Your task to perform on an android device: turn off priority inbox in the gmail app Image 0: 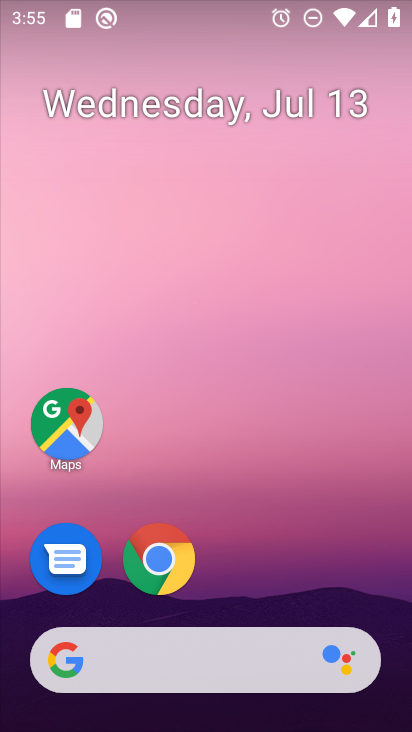
Step 0: drag from (342, 524) to (346, 100)
Your task to perform on an android device: turn off priority inbox in the gmail app Image 1: 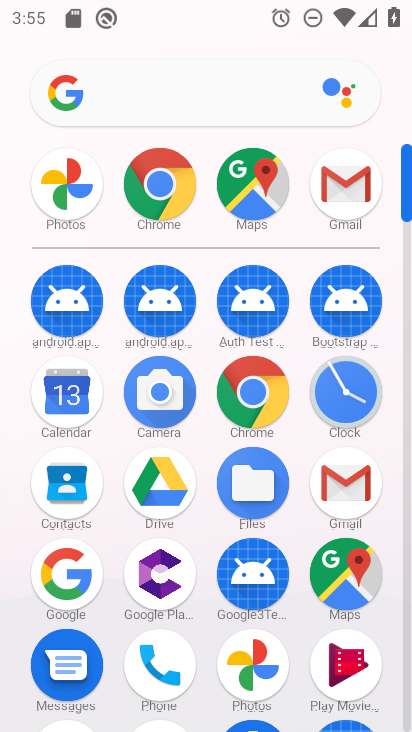
Step 1: click (345, 479)
Your task to perform on an android device: turn off priority inbox in the gmail app Image 2: 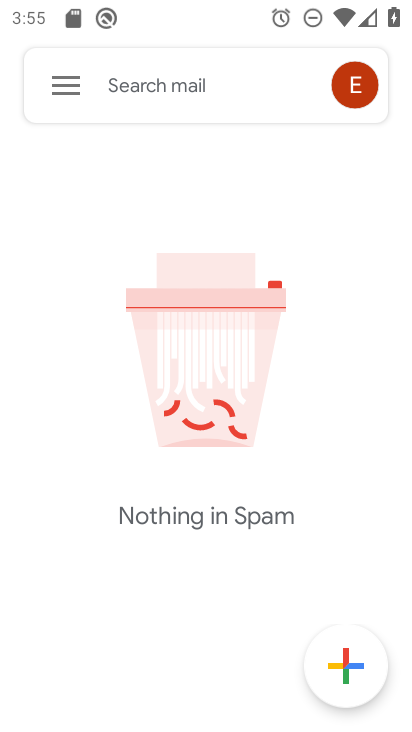
Step 2: click (63, 89)
Your task to perform on an android device: turn off priority inbox in the gmail app Image 3: 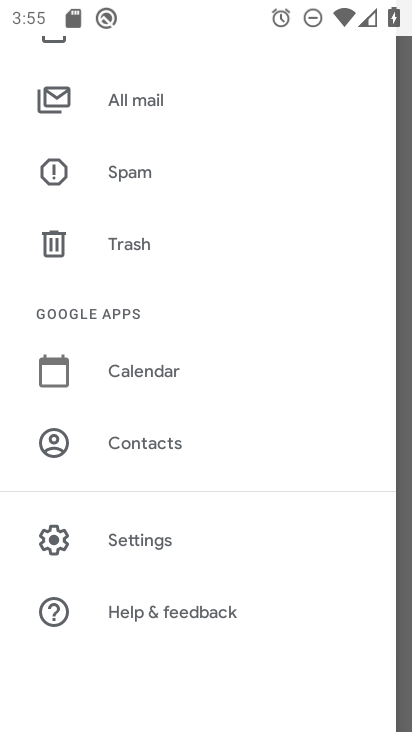
Step 3: drag from (284, 288) to (297, 379)
Your task to perform on an android device: turn off priority inbox in the gmail app Image 4: 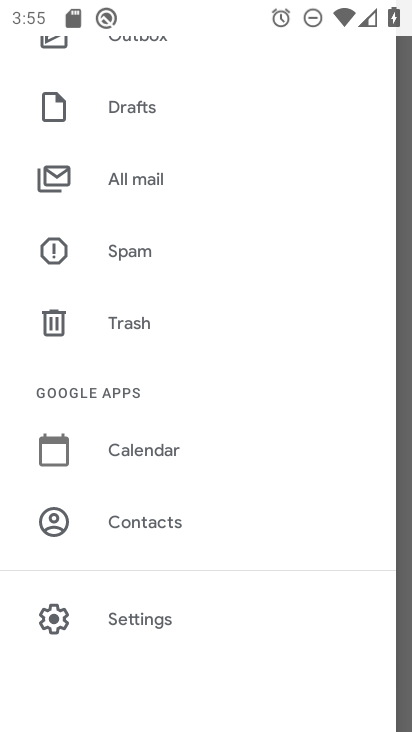
Step 4: drag from (301, 297) to (307, 387)
Your task to perform on an android device: turn off priority inbox in the gmail app Image 5: 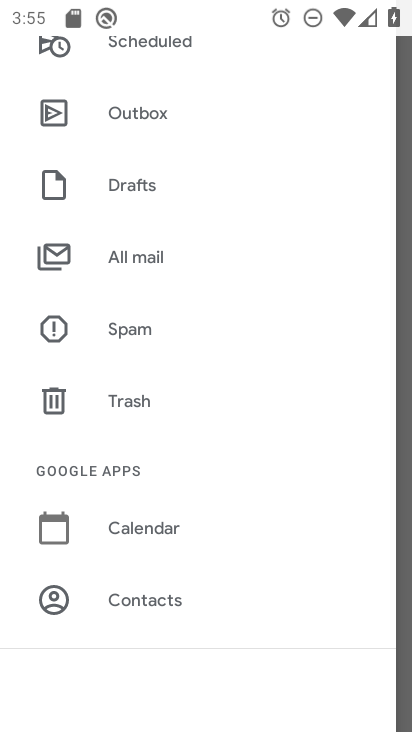
Step 5: drag from (307, 288) to (307, 381)
Your task to perform on an android device: turn off priority inbox in the gmail app Image 6: 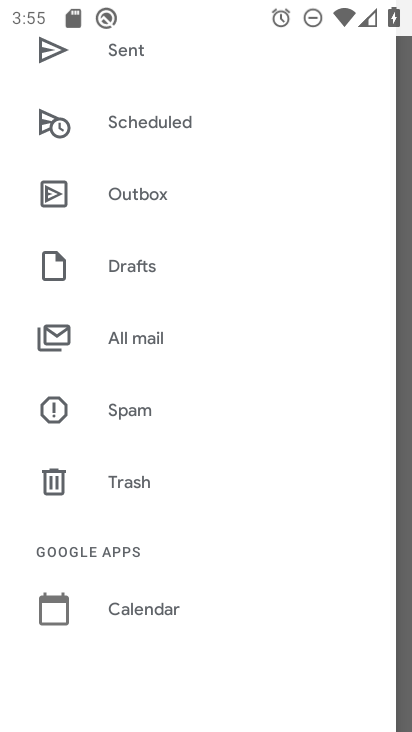
Step 6: drag from (286, 221) to (293, 332)
Your task to perform on an android device: turn off priority inbox in the gmail app Image 7: 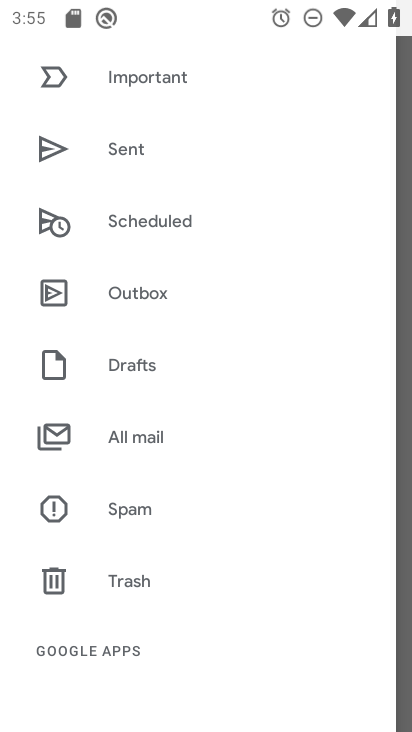
Step 7: drag from (291, 209) to (291, 308)
Your task to perform on an android device: turn off priority inbox in the gmail app Image 8: 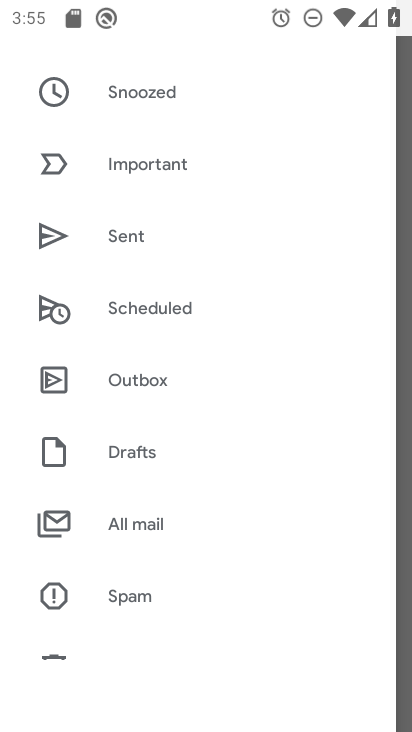
Step 8: drag from (297, 257) to (314, 369)
Your task to perform on an android device: turn off priority inbox in the gmail app Image 9: 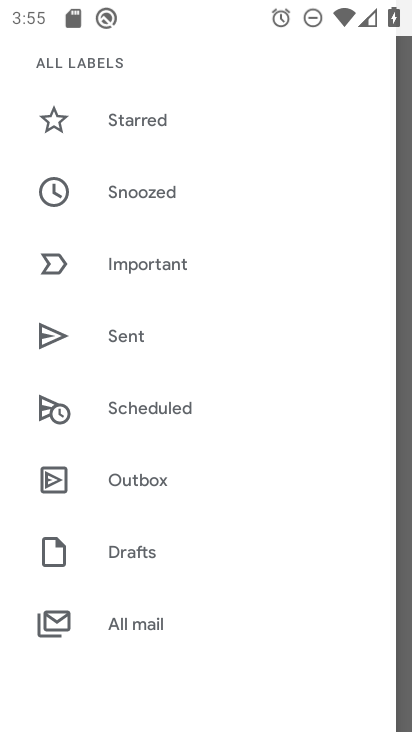
Step 9: drag from (306, 254) to (319, 381)
Your task to perform on an android device: turn off priority inbox in the gmail app Image 10: 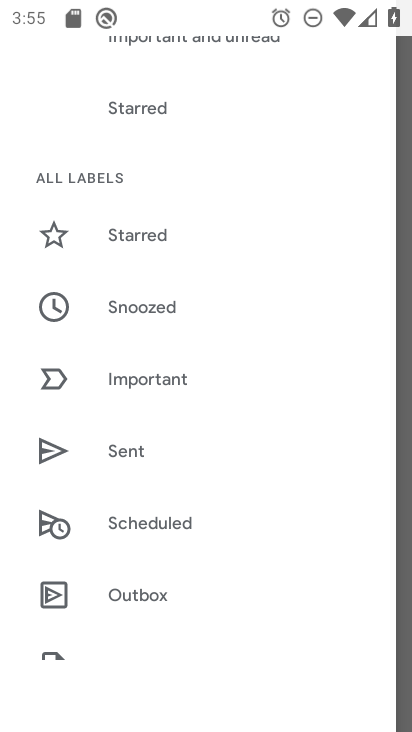
Step 10: drag from (308, 195) to (312, 396)
Your task to perform on an android device: turn off priority inbox in the gmail app Image 11: 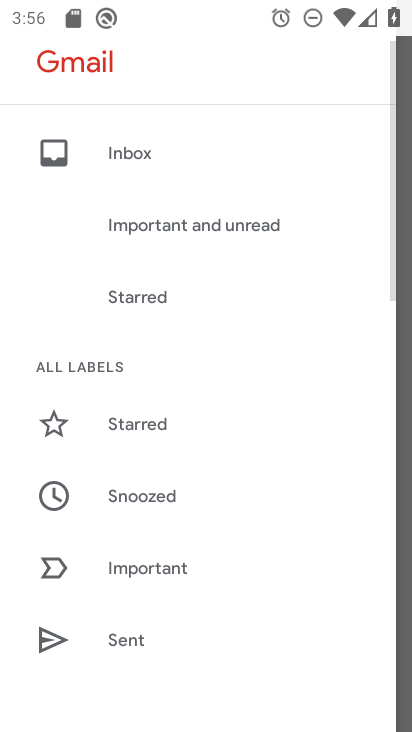
Step 11: drag from (312, 396) to (314, 312)
Your task to perform on an android device: turn off priority inbox in the gmail app Image 12: 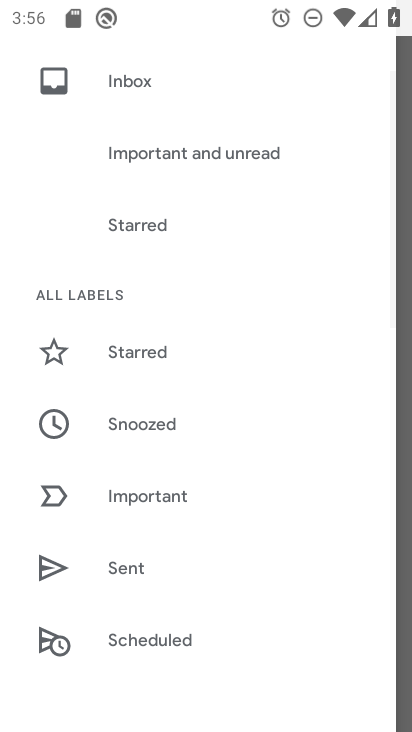
Step 12: drag from (318, 413) to (317, 297)
Your task to perform on an android device: turn off priority inbox in the gmail app Image 13: 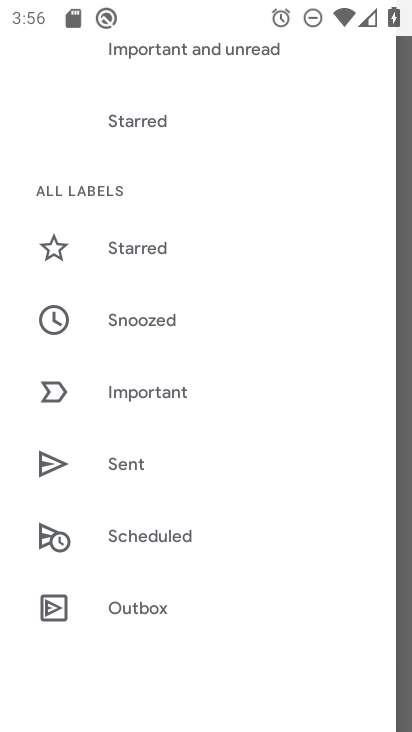
Step 13: drag from (309, 417) to (307, 313)
Your task to perform on an android device: turn off priority inbox in the gmail app Image 14: 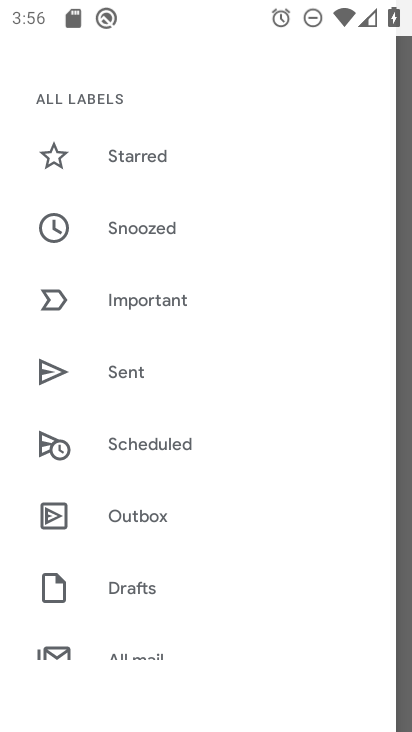
Step 14: drag from (299, 393) to (301, 302)
Your task to perform on an android device: turn off priority inbox in the gmail app Image 15: 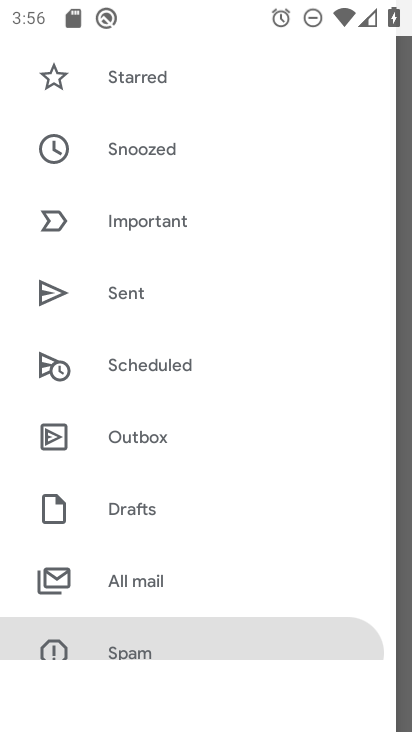
Step 15: drag from (289, 383) to (288, 224)
Your task to perform on an android device: turn off priority inbox in the gmail app Image 16: 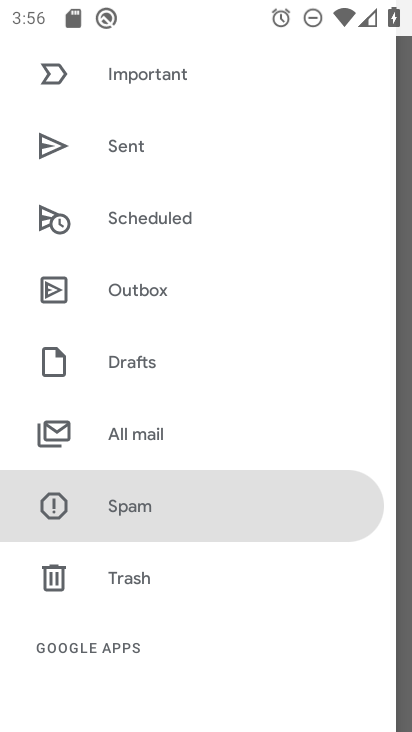
Step 16: drag from (311, 422) to (319, 234)
Your task to perform on an android device: turn off priority inbox in the gmail app Image 17: 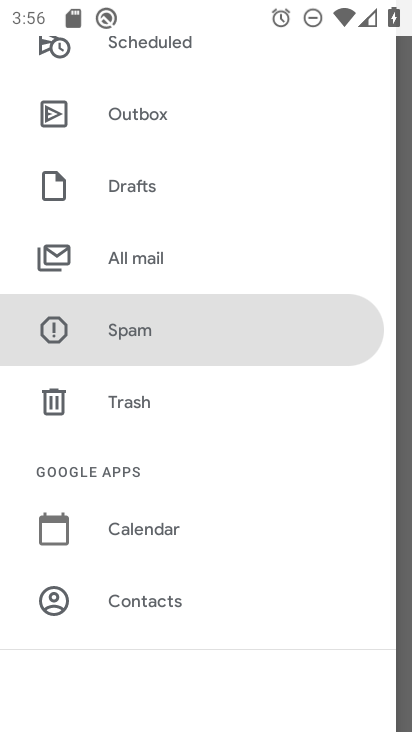
Step 17: drag from (317, 466) to (312, 314)
Your task to perform on an android device: turn off priority inbox in the gmail app Image 18: 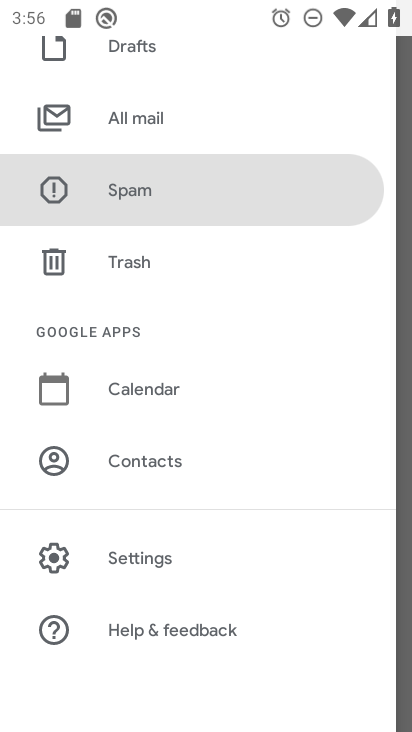
Step 18: click (268, 566)
Your task to perform on an android device: turn off priority inbox in the gmail app Image 19: 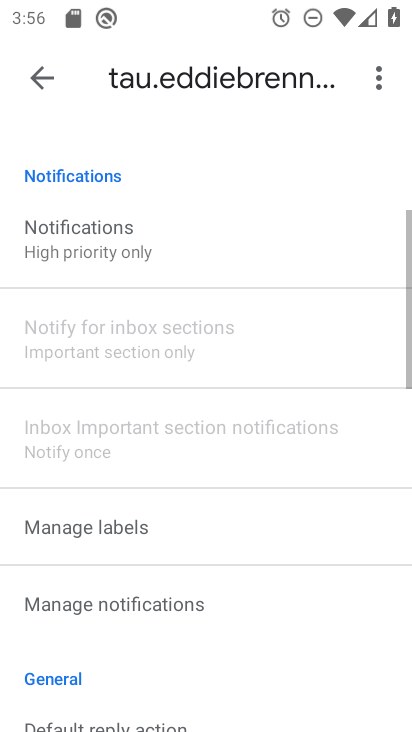
Step 19: drag from (268, 558) to (270, 447)
Your task to perform on an android device: turn off priority inbox in the gmail app Image 20: 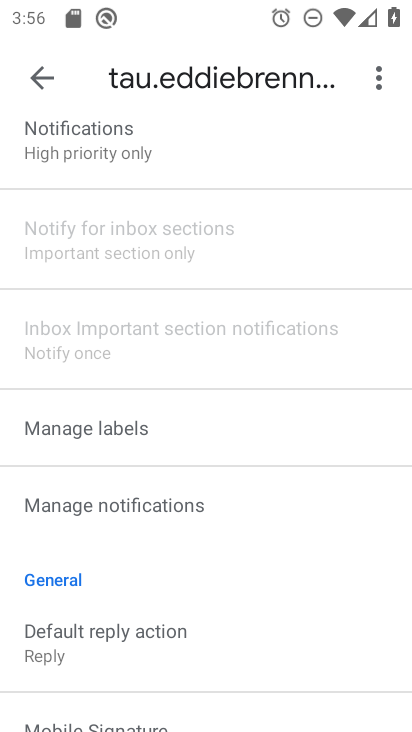
Step 20: drag from (277, 536) to (274, 432)
Your task to perform on an android device: turn off priority inbox in the gmail app Image 21: 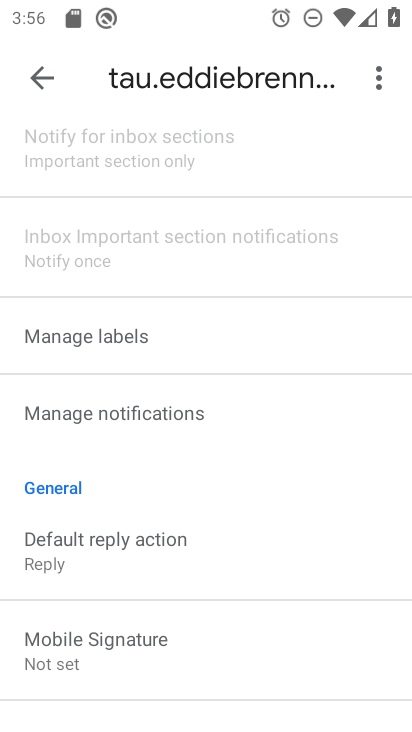
Step 21: drag from (274, 512) to (277, 421)
Your task to perform on an android device: turn off priority inbox in the gmail app Image 22: 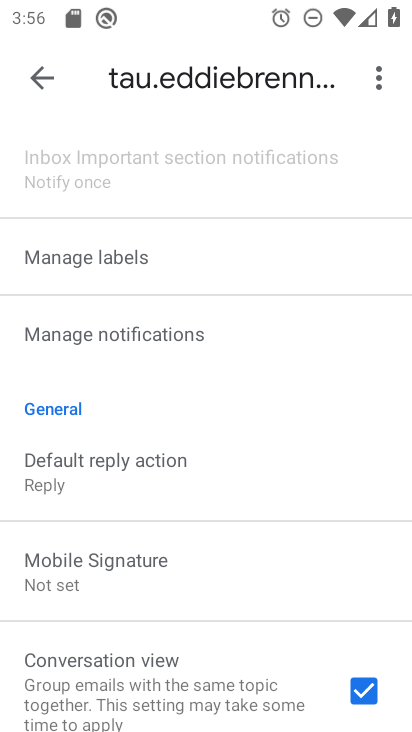
Step 22: drag from (272, 341) to (275, 458)
Your task to perform on an android device: turn off priority inbox in the gmail app Image 23: 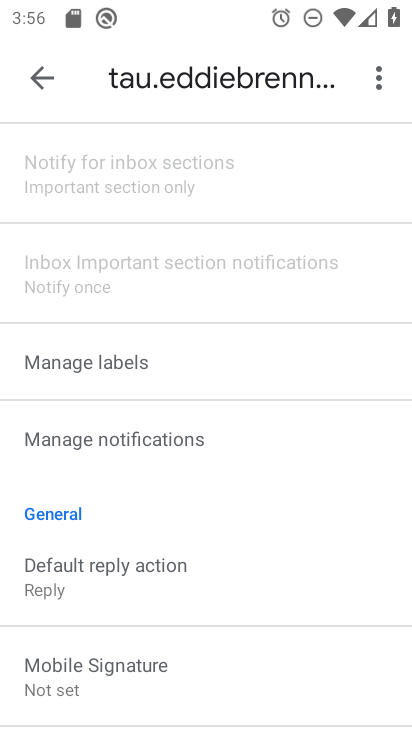
Step 23: drag from (257, 277) to (250, 457)
Your task to perform on an android device: turn off priority inbox in the gmail app Image 24: 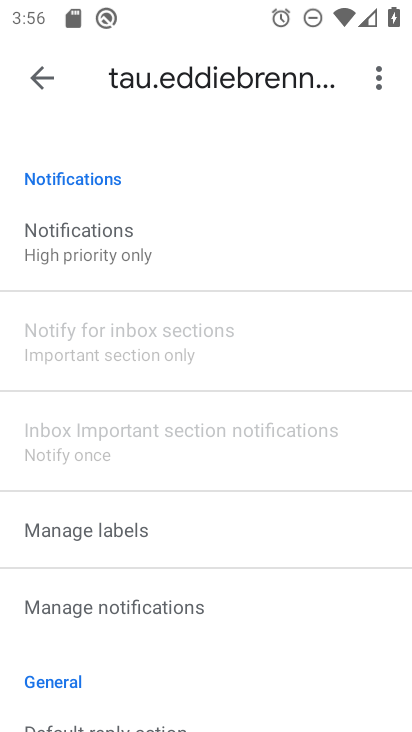
Step 24: drag from (239, 233) to (238, 403)
Your task to perform on an android device: turn off priority inbox in the gmail app Image 25: 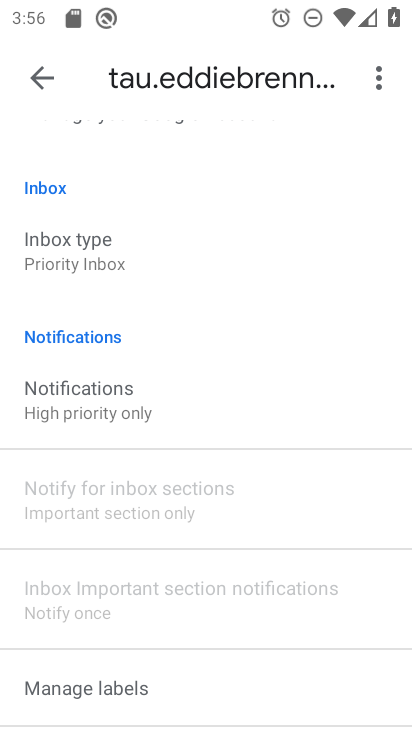
Step 25: click (99, 260)
Your task to perform on an android device: turn off priority inbox in the gmail app Image 26: 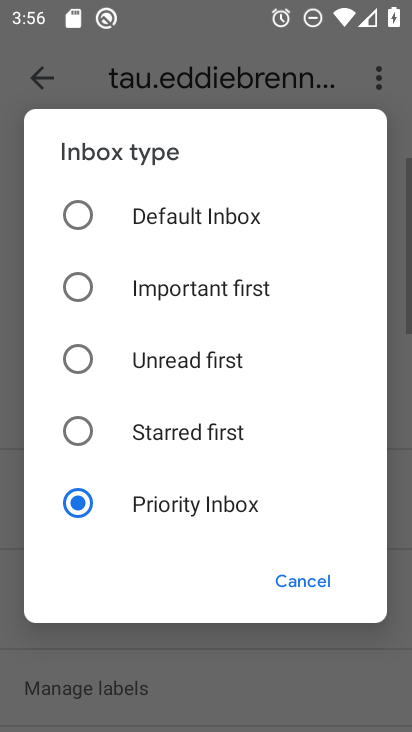
Step 26: click (88, 216)
Your task to perform on an android device: turn off priority inbox in the gmail app Image 27: 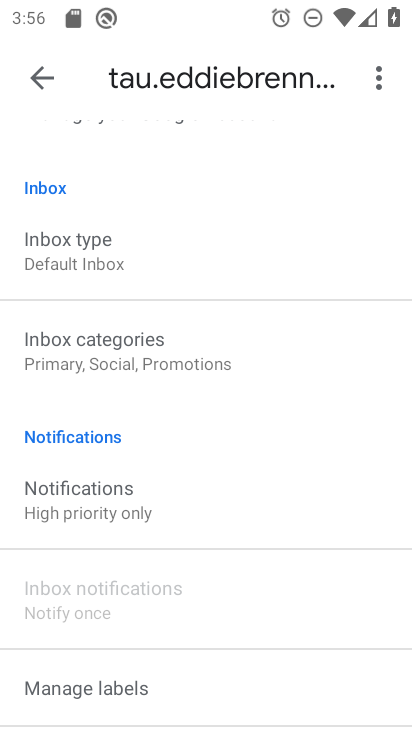
Step 27: task complete